Your task to perform on an android device: toggle notification dots Image 0: 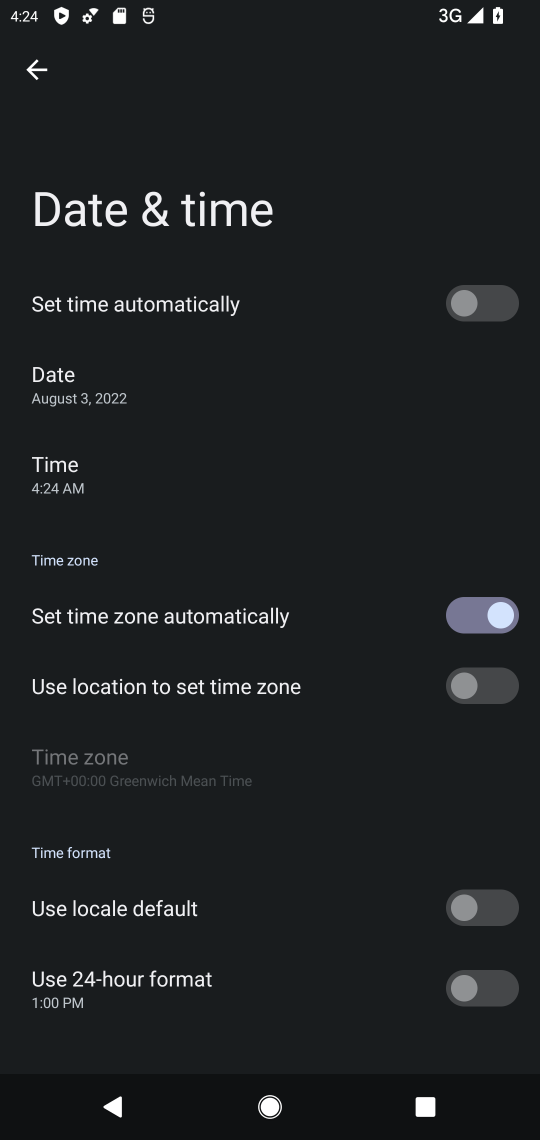
Step 0: press home button
Your task to perform on an android device: toggle notification dots Image 1: 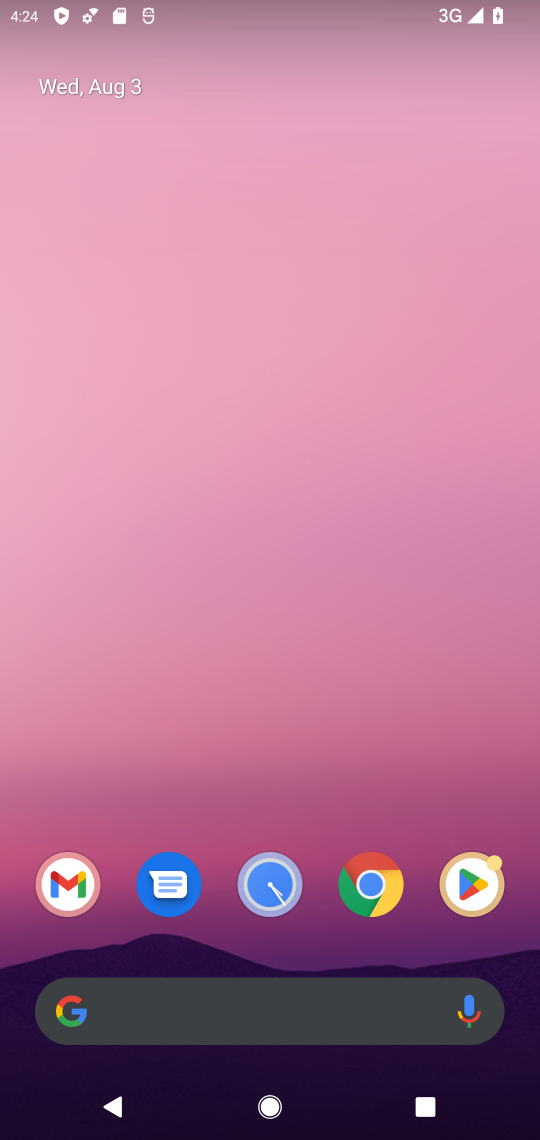
Step 1: drag from (215, 963) to (262, 110)
Your task to perform on an android device: toggle notification dots Image 2: 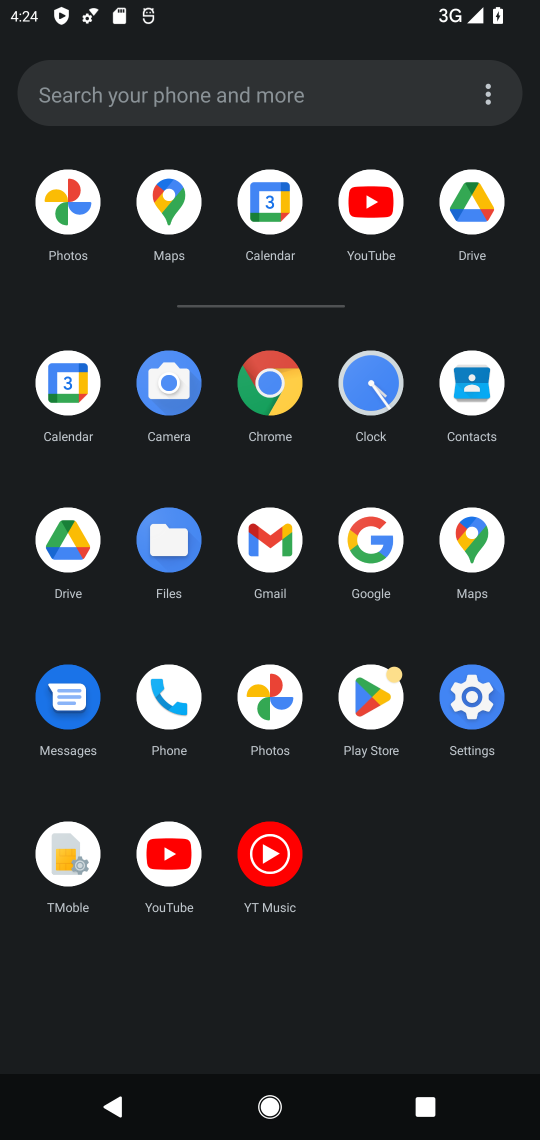
Step 2: click (457, 683)
Your task to perform on an android device: toggle notification dots Image 3: 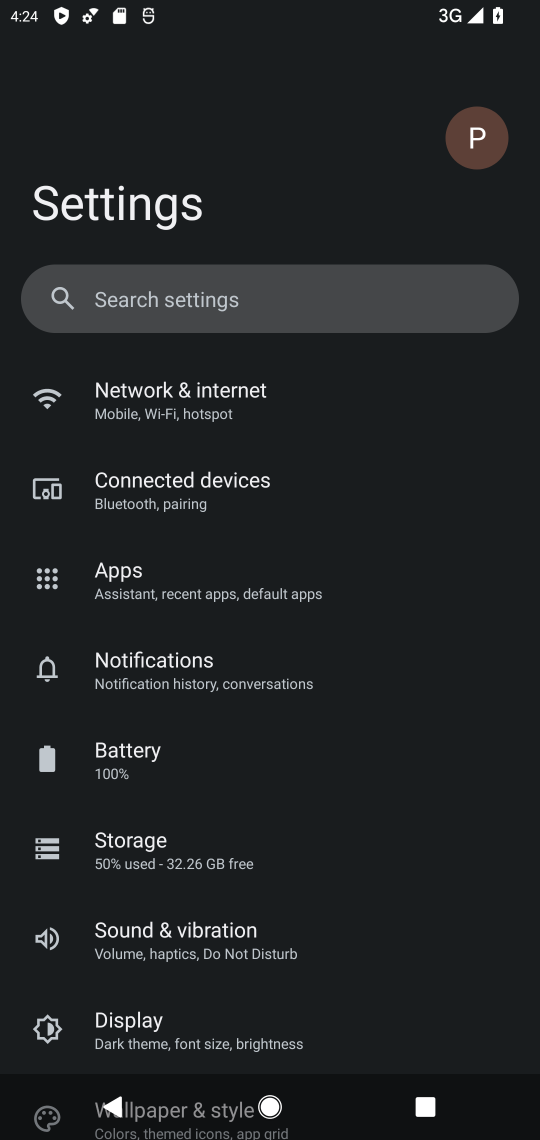
Step 3: click (335, 672)
Your task to perform on an android device: toggle notification dots Image 4: 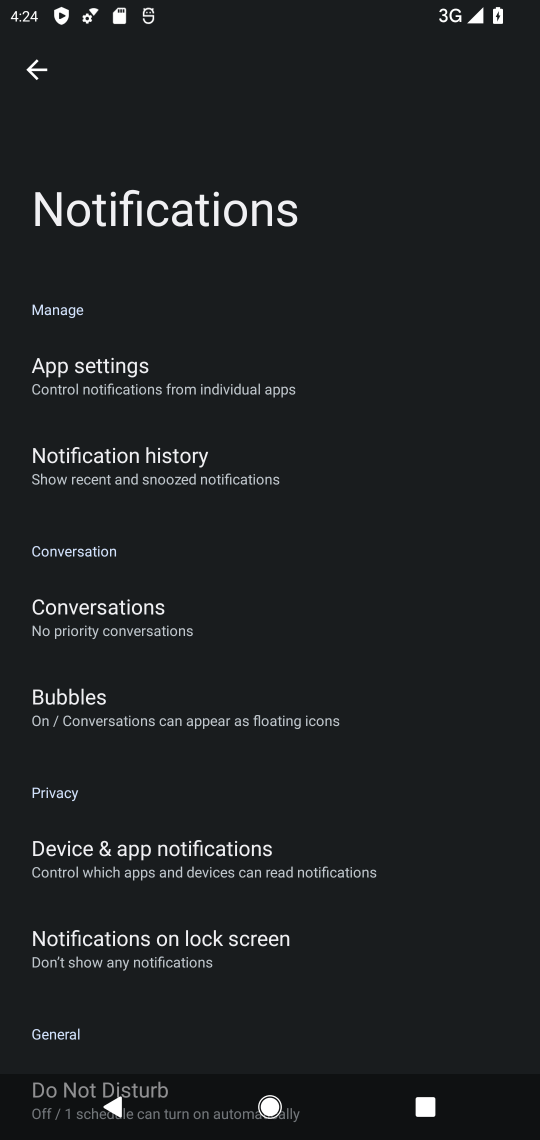
Step 4: task complete